Your task to perform on an android device: Find coffee shops on Maps Image 0: 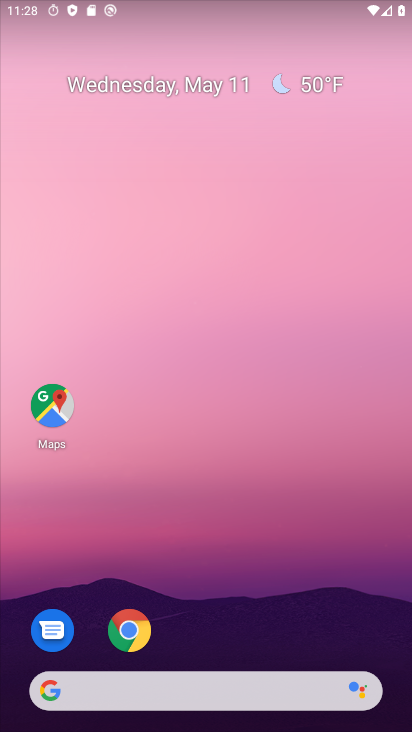
Step 0: drag from (187, 398) to (203, 156)
Your task to perform on an android device: Find coffee shops on Maps Image 1: 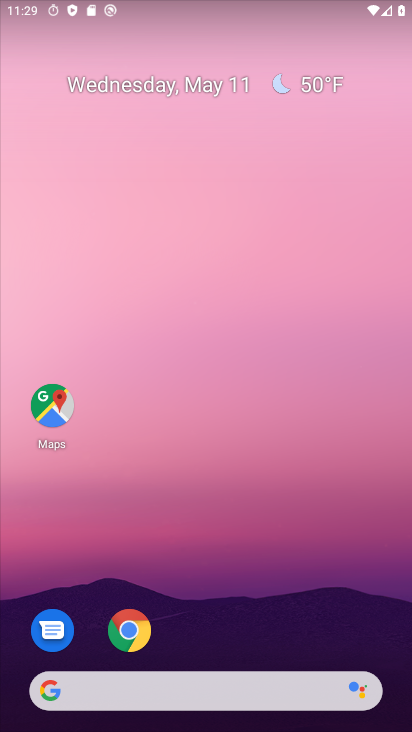
Step 1: click (51, 403)
Your task to perform on an android device: Find coffee shops on Maps Image 2: 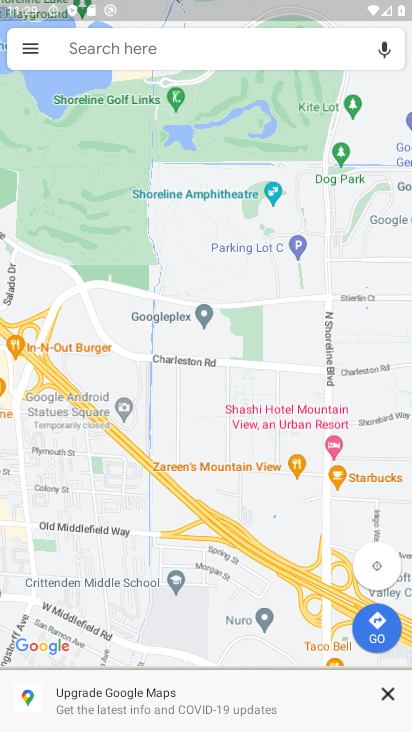
Step 2: click (87, 31)
Your task to perform on an android device: Find coffee shops on Maps Image 3: 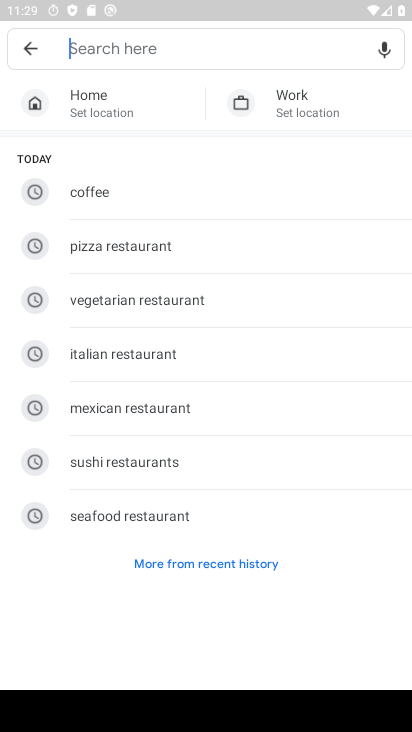
Step 3: type "coffee shops"
Your task to perform on an android device: Find coffee shops on Maps Image 4: 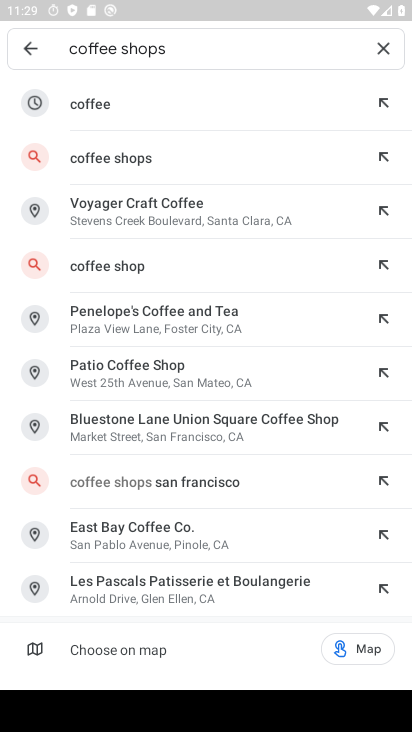
Step 4: click (165, 165)
Your task to perform on an android device: Find coffee shops on Maps Image 5: 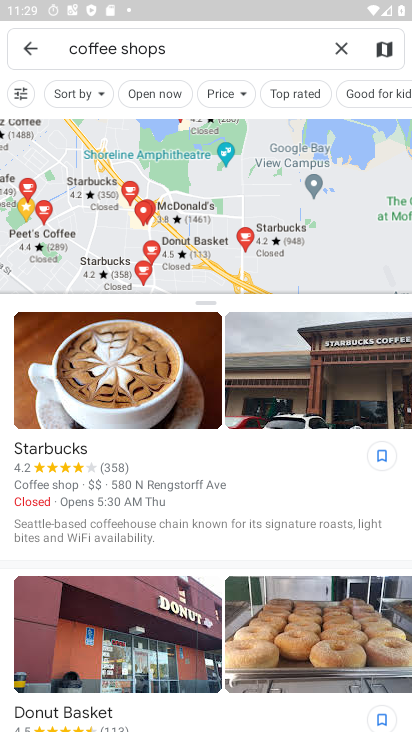
Step 5: task complete